Your task to perform on an android device: Search for flights from Mexico city to Zurich Image 0: 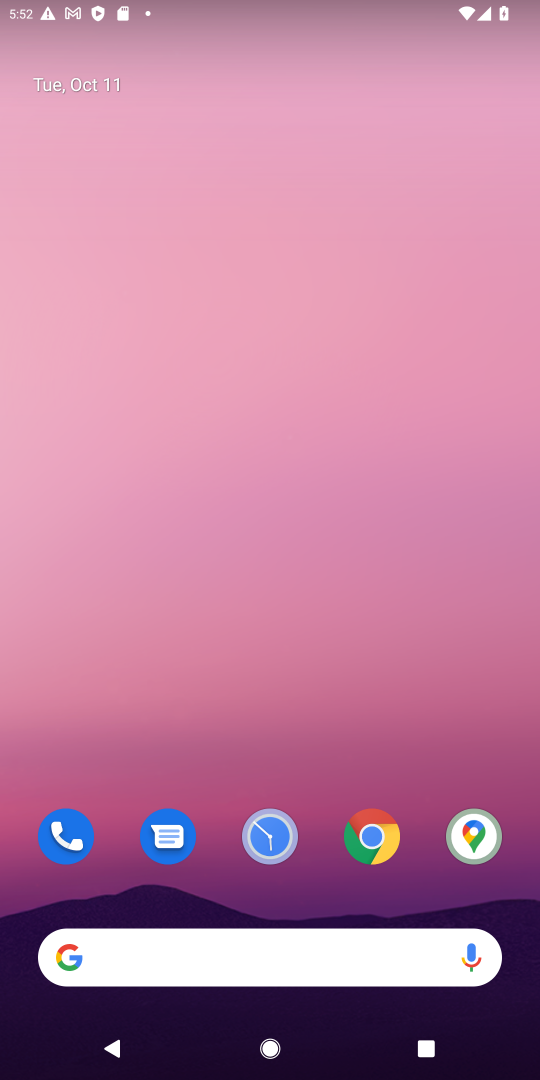
Step 0: click (372, 833)
Your task to perform on an android device: Search for flights from Mexico city to Zurich Image 1: 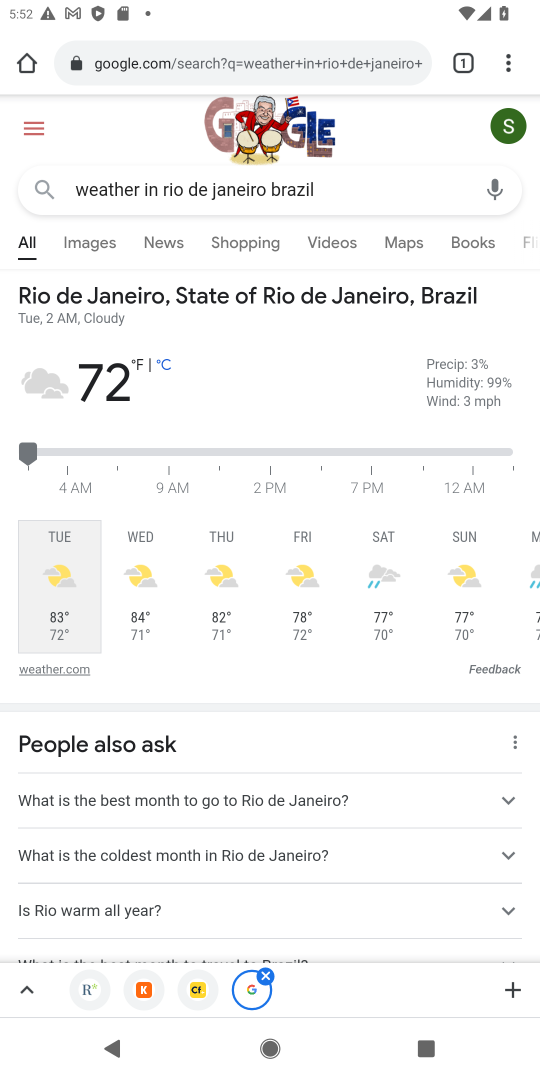
Step 1: click (236, 46)
Your task to perform on an android device: Search for flights from Mexico city to Zurich Image 2: 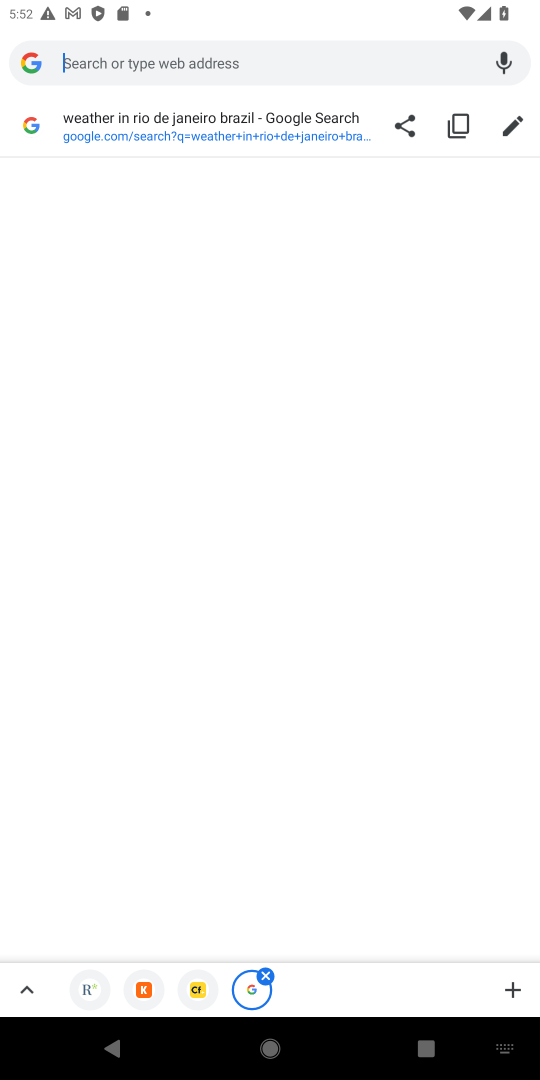
Step 2: type "expedia"
Your task to perform on an android device: Search for flights from Mexico city to Zurich Image 3: 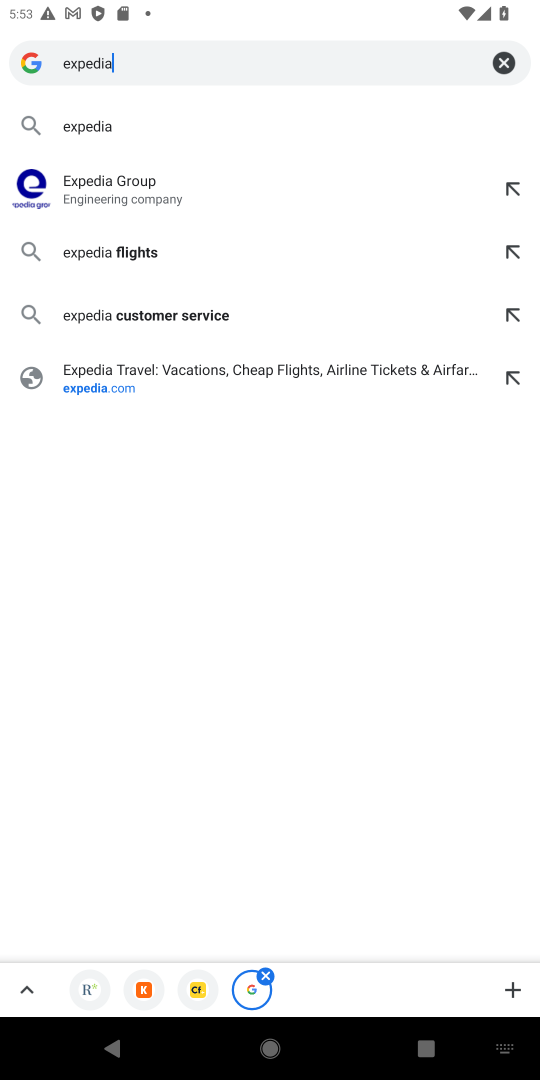
Step 3: click (93, 244)
Your task to perform on an android device: Search for flights from Mexico city to Zurich Image 4: 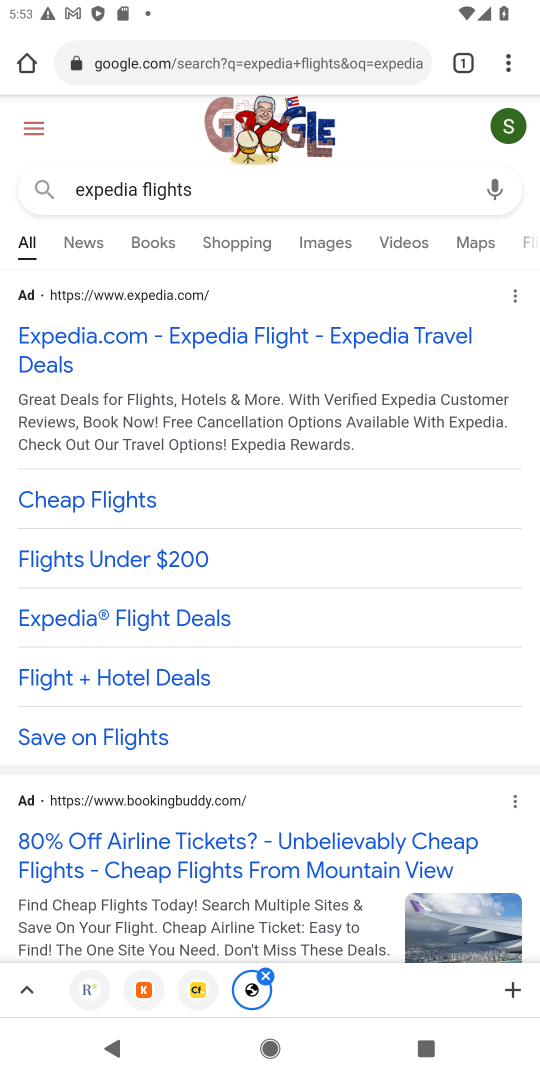
Step 4: click (113, 347)
Your task to perform on an android device: Search for flights from Mexico city to Zurich Image 5: 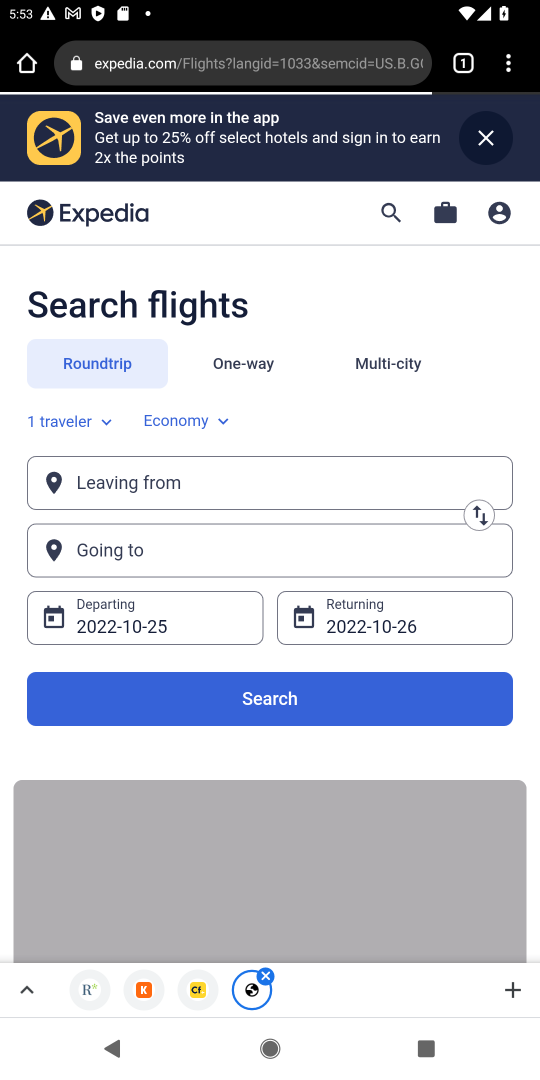
Step 5: click (156, 485)
Your task to perform on an android device: Search for flights from Mexico city to Zurich Image 6: 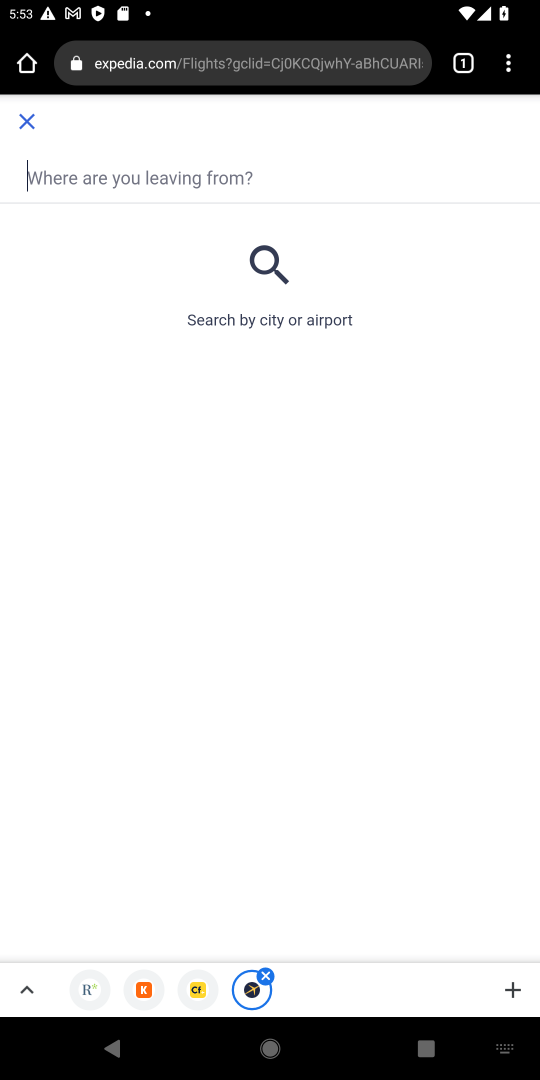
Step 6: type "Mexico city"
Your task to perform on an android device: Search for flights from Mexico city to Zurich Image 7: 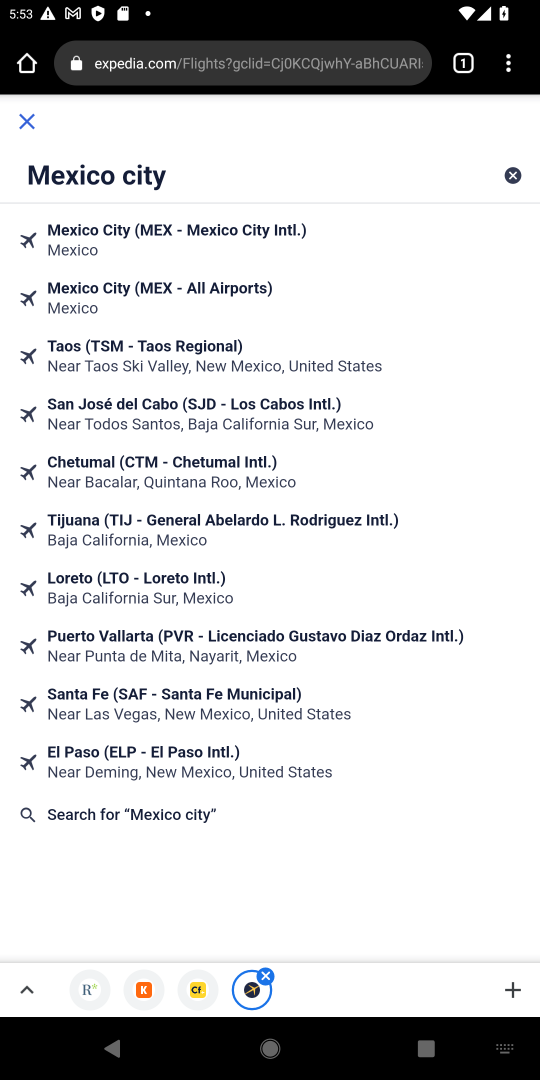
Step 7: click (72, 236)
Your task to perform on an android device: Search for flights from Mexico city to Zurich Image 8: 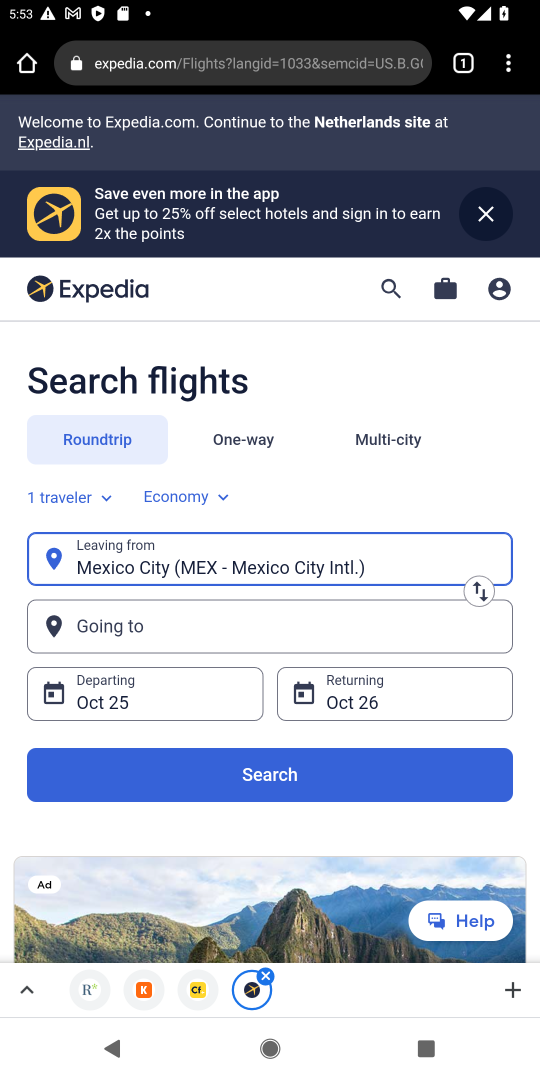
Step 8: click (66, 620)
Your task to perform on an android device: Search for flights from Mexico city to Zurich Image 9: 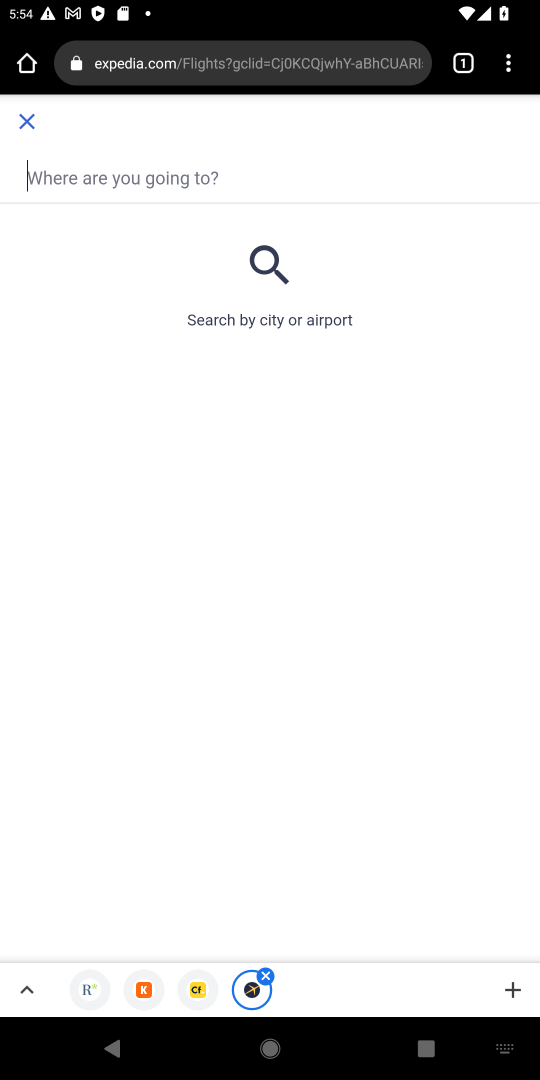
Step 9: type "Zurich"
Your task to perform on an android device: Search for flights from Mexico city to Zurich Image 10: 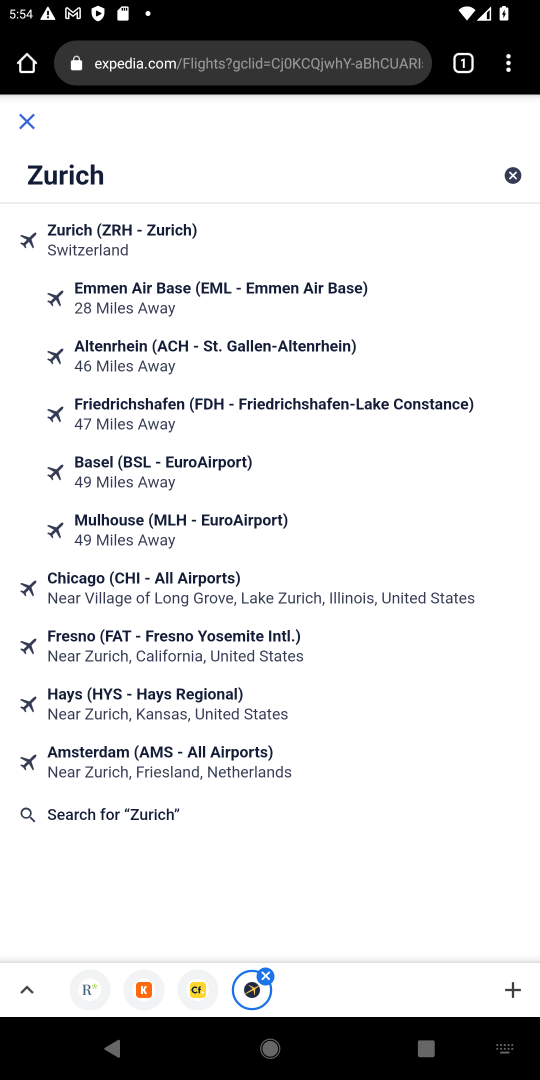
Step 10: click (75, 223)
Your task to perform on an android device: Search for flights from Mexico city to Zurich Image 11: 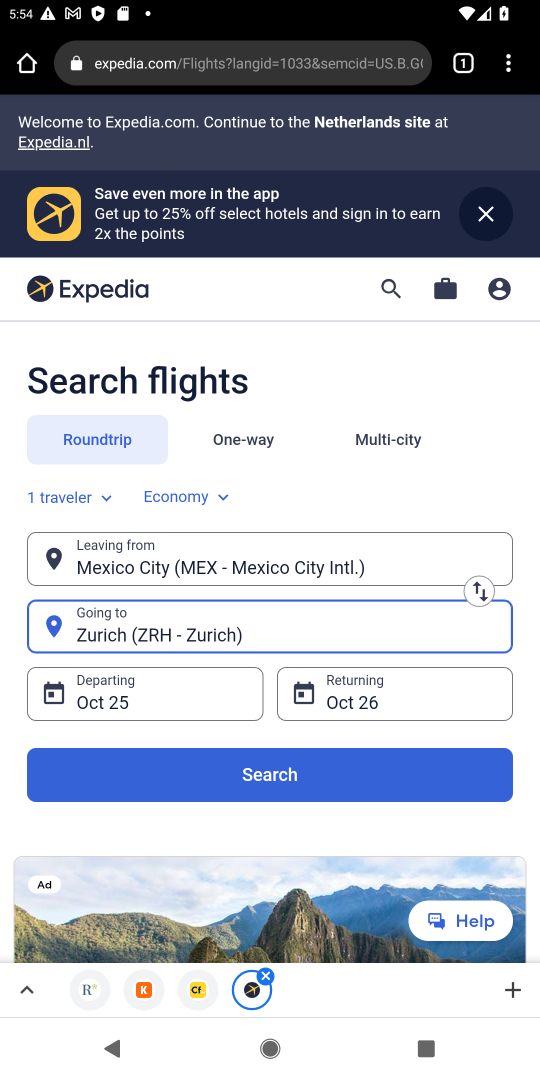
Step 11: click (276, 781)
Your task to perform on an android device: Search for flights from Mexico city to Zurich Image 12: 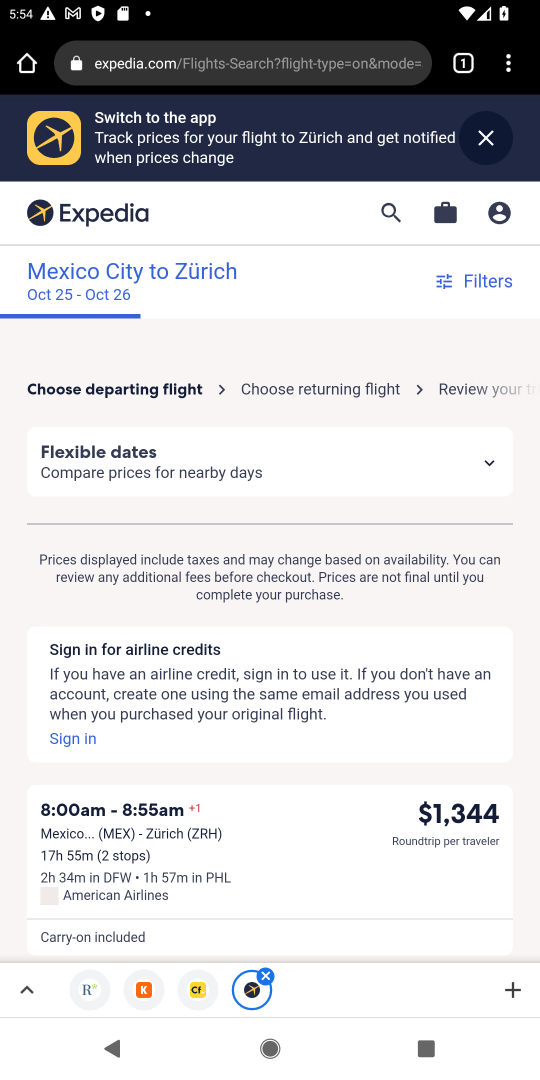
Step 12: task complete